Your task to perform on an android device: Go to location settings Image 0: 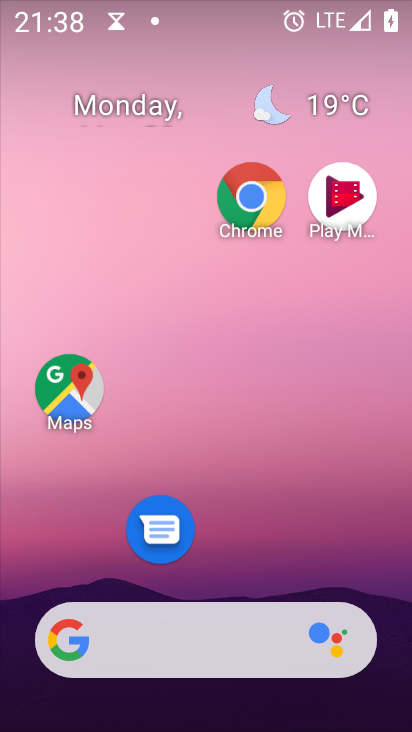
Step 0: drag from (212, 543) to (122, 30)
Your task to perform on an android device: Go to location settings Image 1: 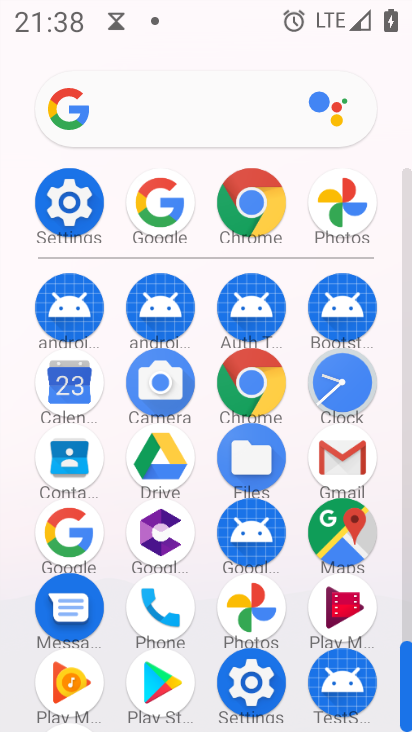
Step 1: click (71, 199)
Your task to perform on an android device: Go to location settings Image 2: 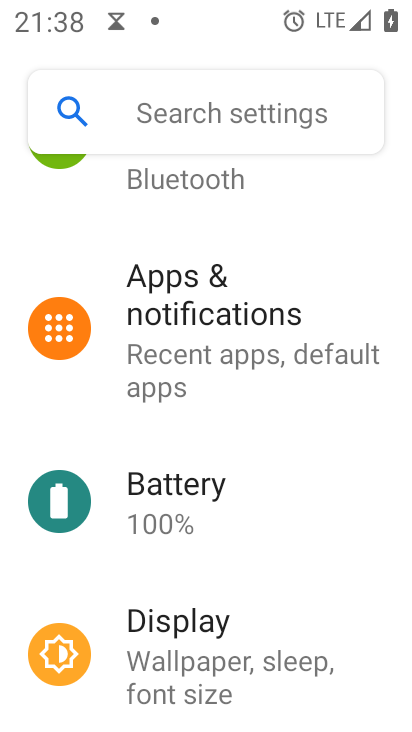
Step 2: drag from (182, 651) to (192, 350)
Your task to perform on an android device: Go to location settings Image 3: 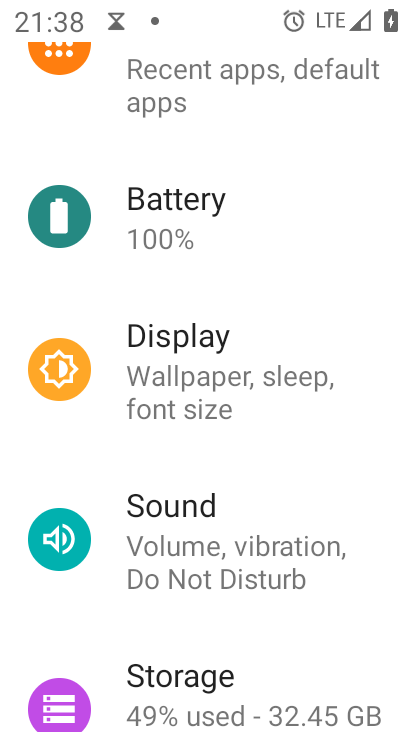
Step 3: drag from (230, 614) to (225, 189)
Your task to perform on an android device: Go to location settings Image 4: 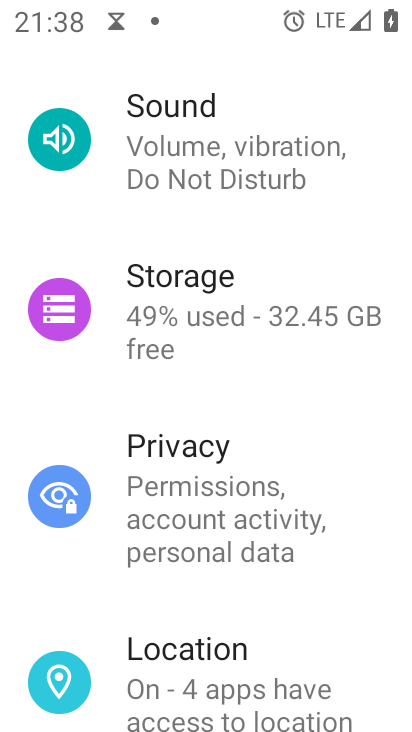
Step 4: drag from (186, 627) to (179, 290)
Your task to perform on an android device: Go to location settings Image 5: 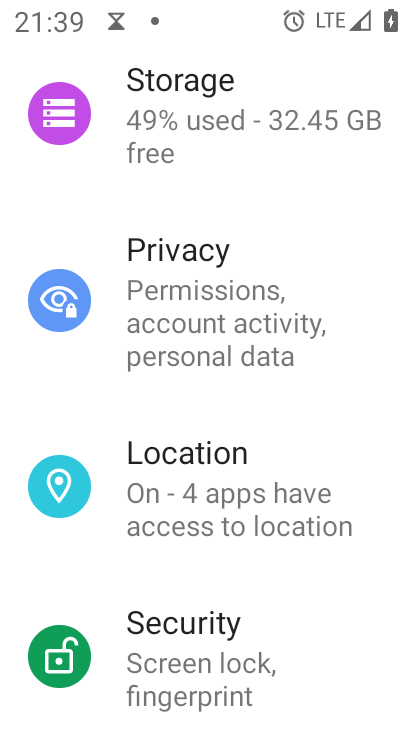
Step 5: click (181, 504)
Your task to perform on an android device: Go to location settings Image 6: 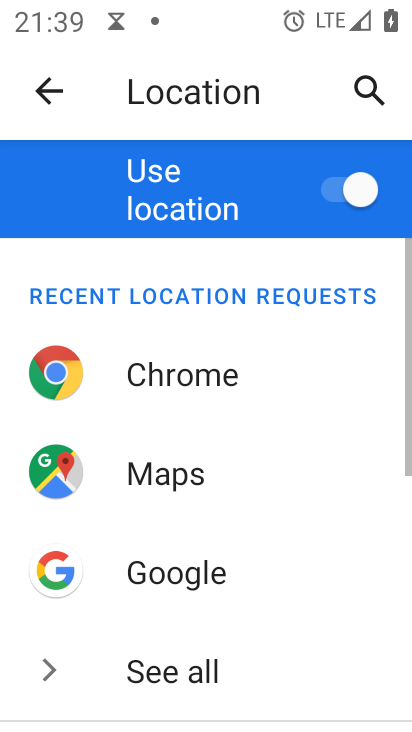
Step 6: drag from (237, 583) to (227, 294)
Your task to perform on an android device: Go to location settings Image 7: 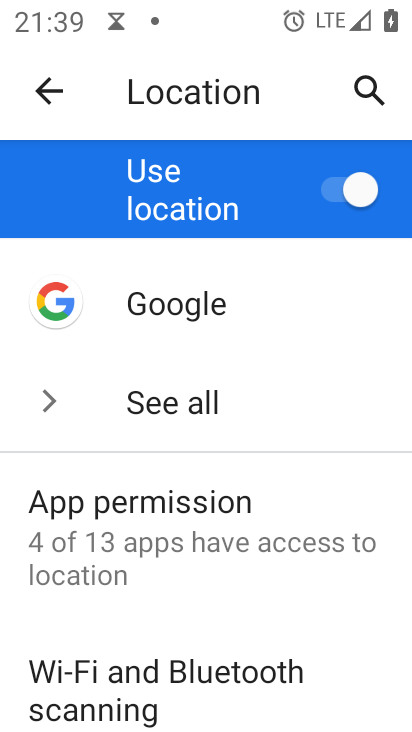
Step 7: click (163, 457)
Your task to perform on an android device: Go to location settings Image 8: 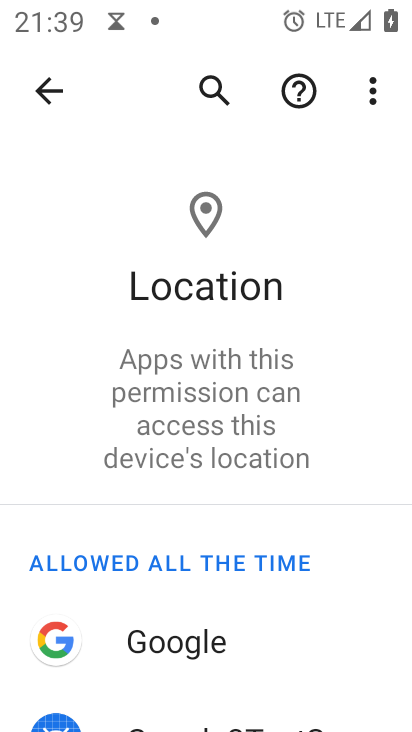
Step 8: task complete